Your task to perform on an android device: add a contact Image 0: 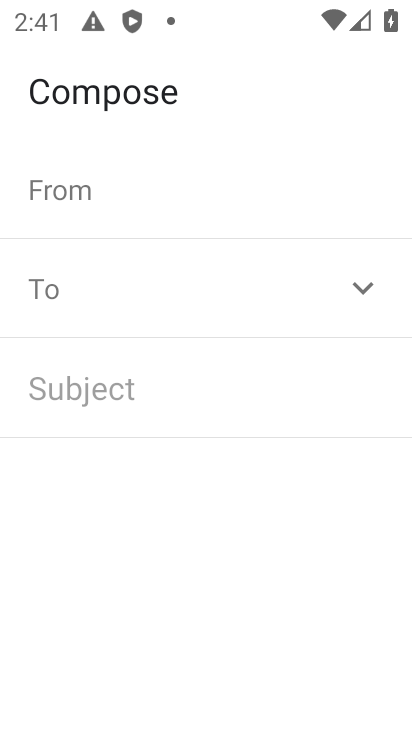
Step 0: drag from (218, 568) to (223, 225)
Your task to perform on an android device: add a contact Image 1: 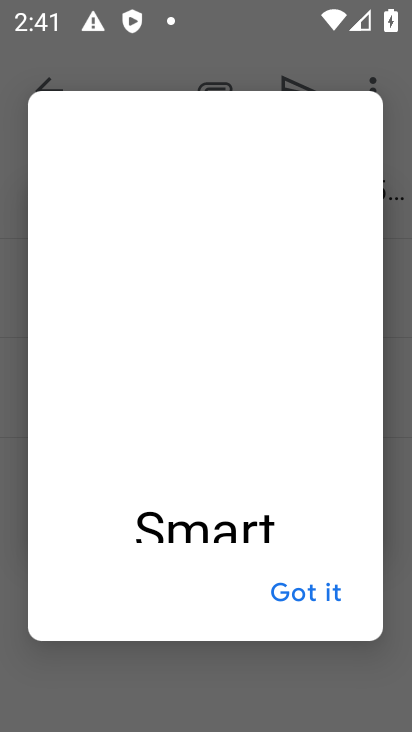
Step 1: press home button
Your task to perform on an android device: add a contact Image 2: 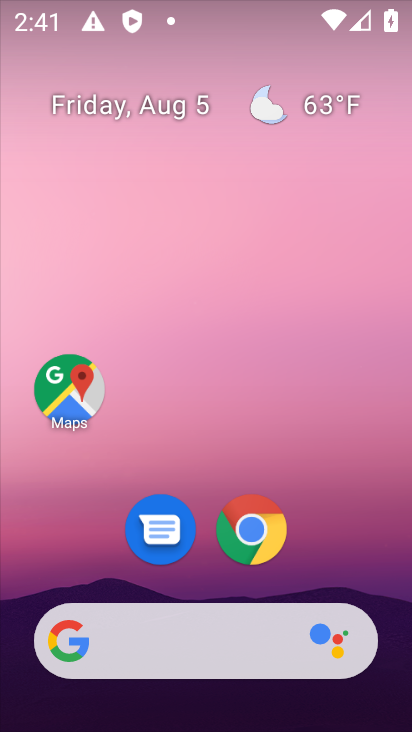
Step 2: drag from (228, 587) to (214, 211)
Your task to perform on an android device: add a contact Image 3: 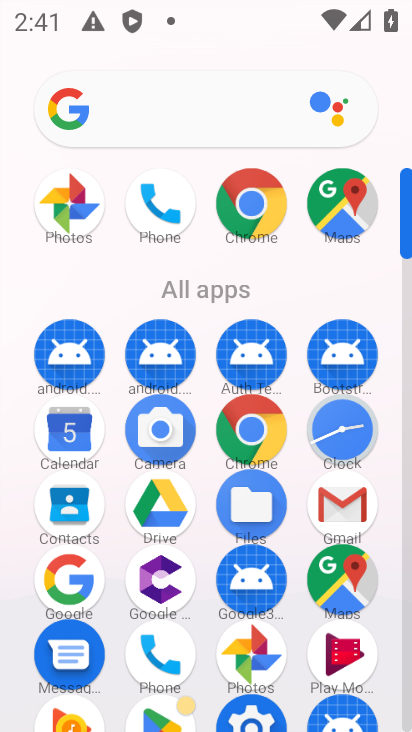
Step 3: click (61, 501)
Your task to perform on an android device: add a contact Image 4: 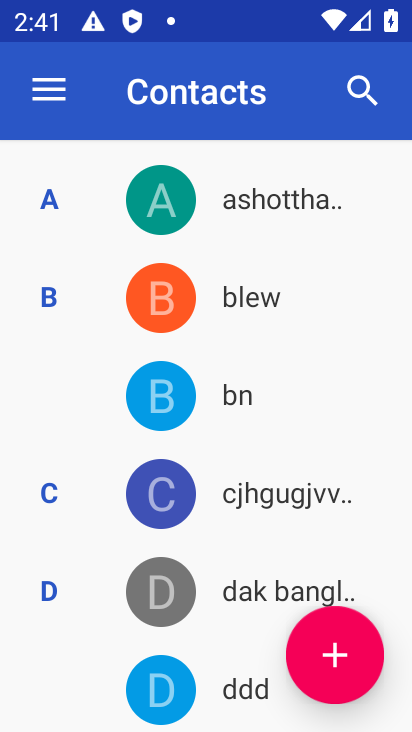
Step 4: click (336, 654)
Your task to perform on an android device: add a contact Image 5: 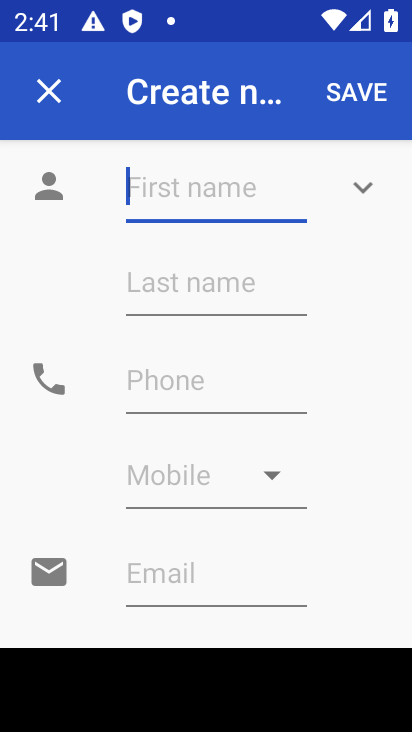
Step 5: type "hj ghgh"
Your task to perform on an android device: add a contact Image 6: 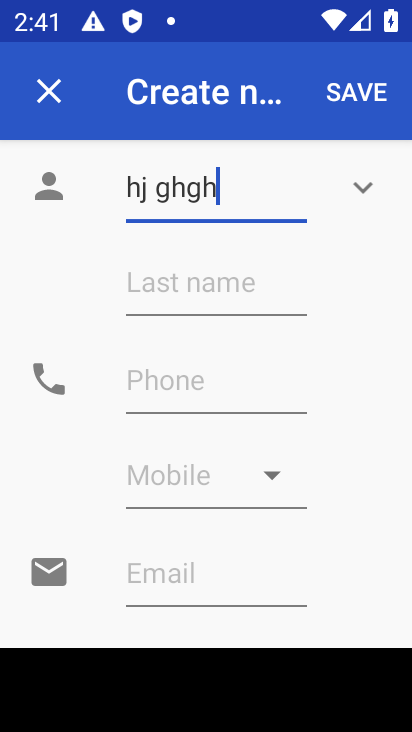
Step 6: press enter
Your task to perform on an android device: add a contact Image 7: 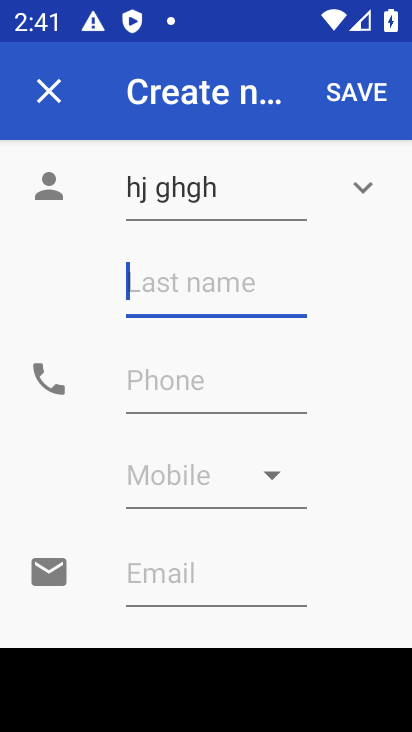
Step 7: click (165, 381)
Your task to perform on an android device: add a contact Image 8: 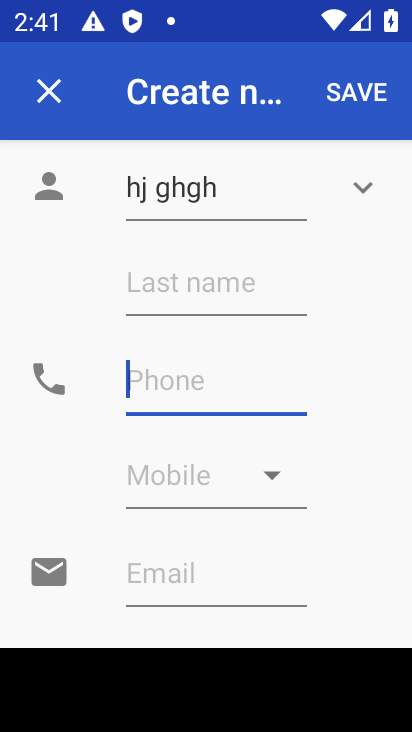
Step 8: type "7887777"
Your task to perform on an android device: add a contact Image 9: 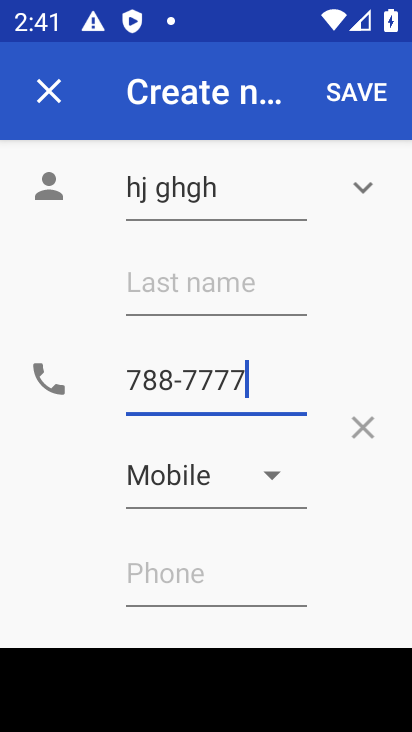
Step 9: press enter
Your task to perform on an android device: add a contact Image 10: 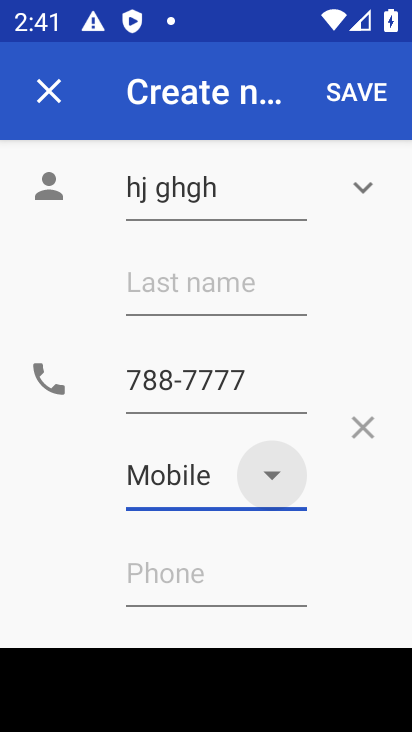
Step 10: click (353, 94)
Your task to perform on an android device: add a contact Image 11: 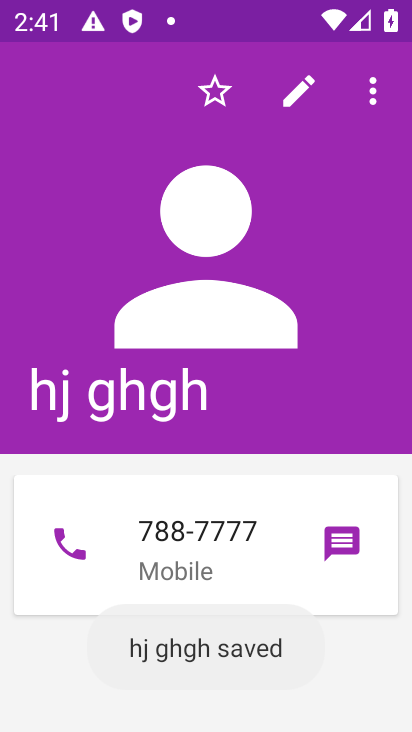
Step 11: task complete